Your task to perform on an android device: change notifications settings Image 0: 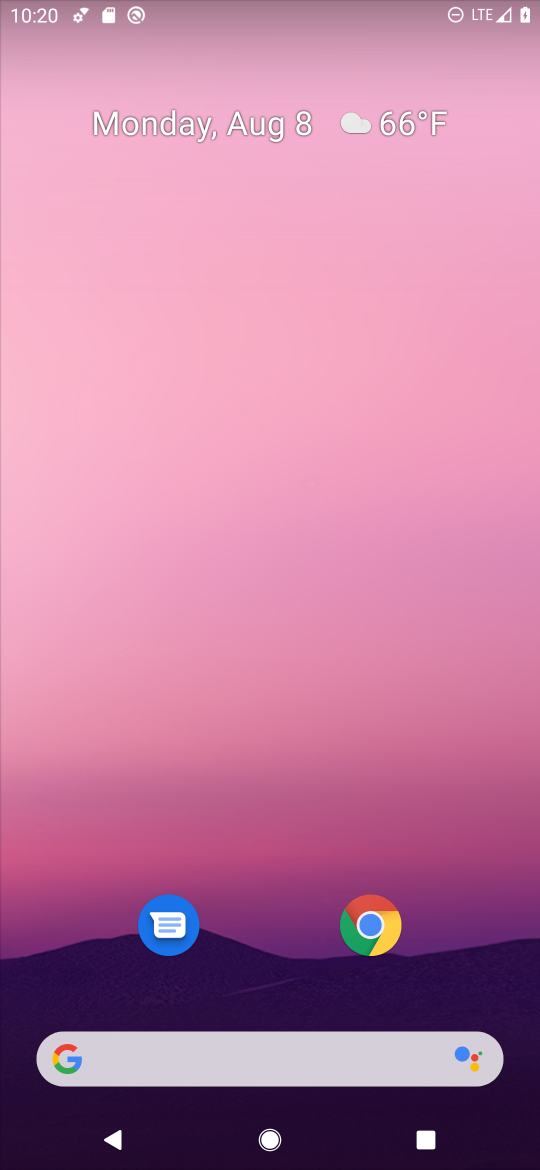
Step 0: drag from (248, 948) to (297, 205)
Your task to perform on an android device: change notifications settings Image 1: 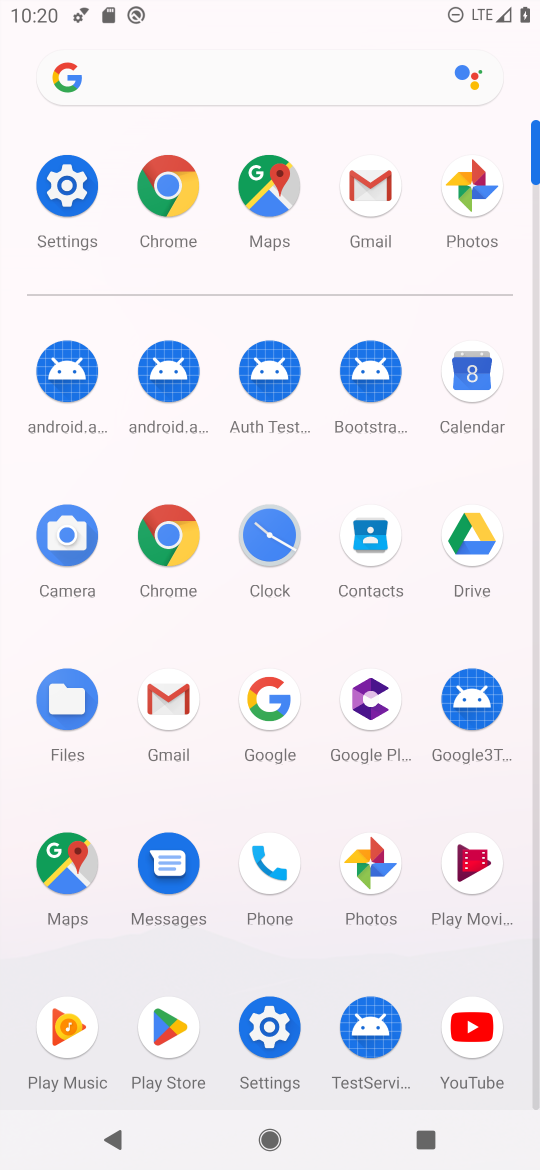
Step 1: click (280, 1033)
Your task to perform on an android device: change notifications settings Image 2: 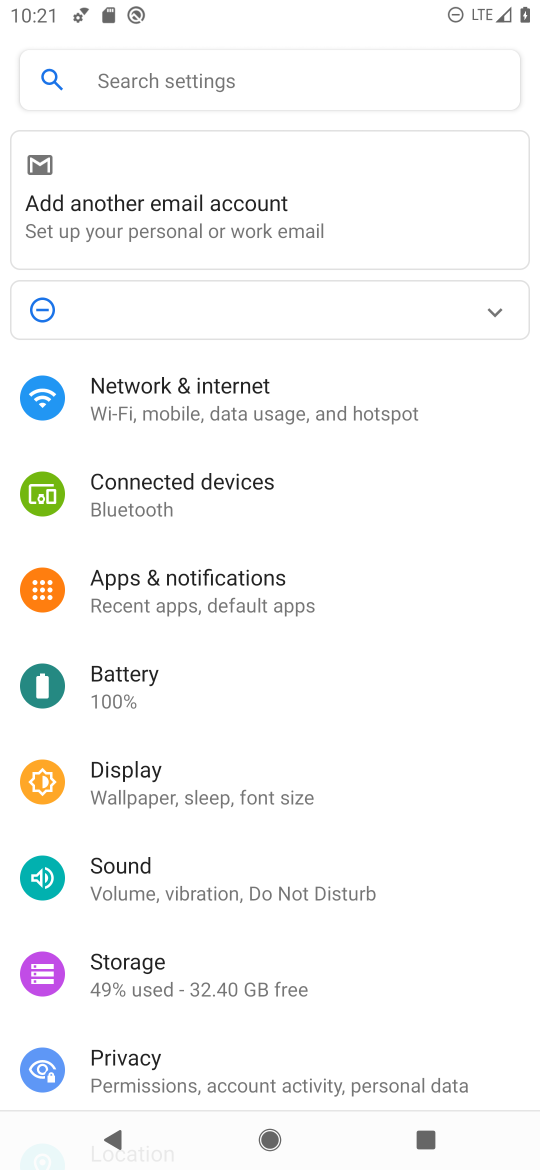
Step 2: click (177, 573)
Your task to perform on an android device: change notifications settings Image 3: 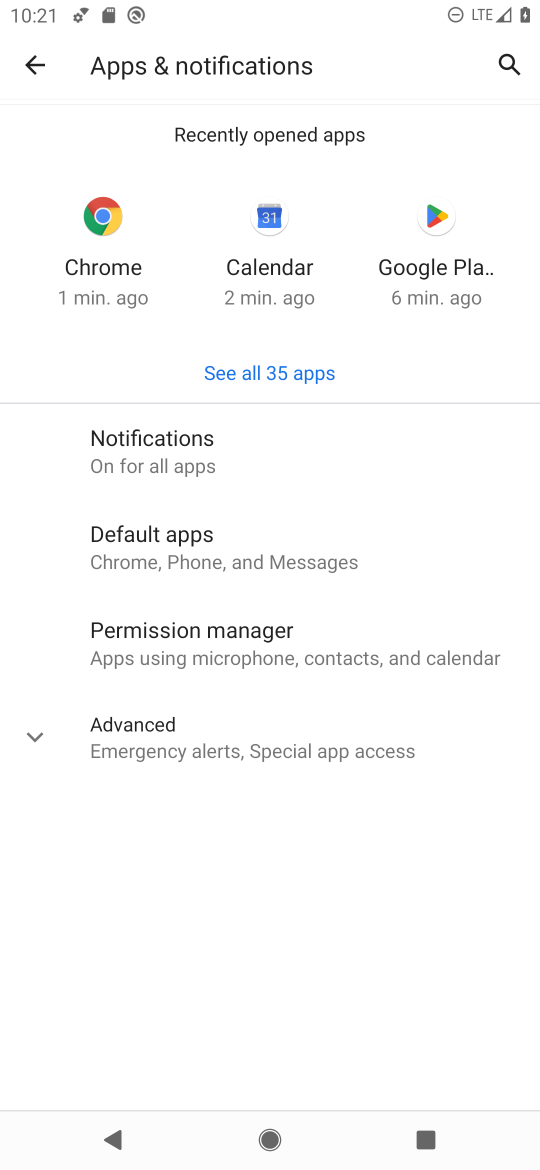
Step 3: click (152, 456)
Your task to perform on an android device: change notifications settings Image 4: 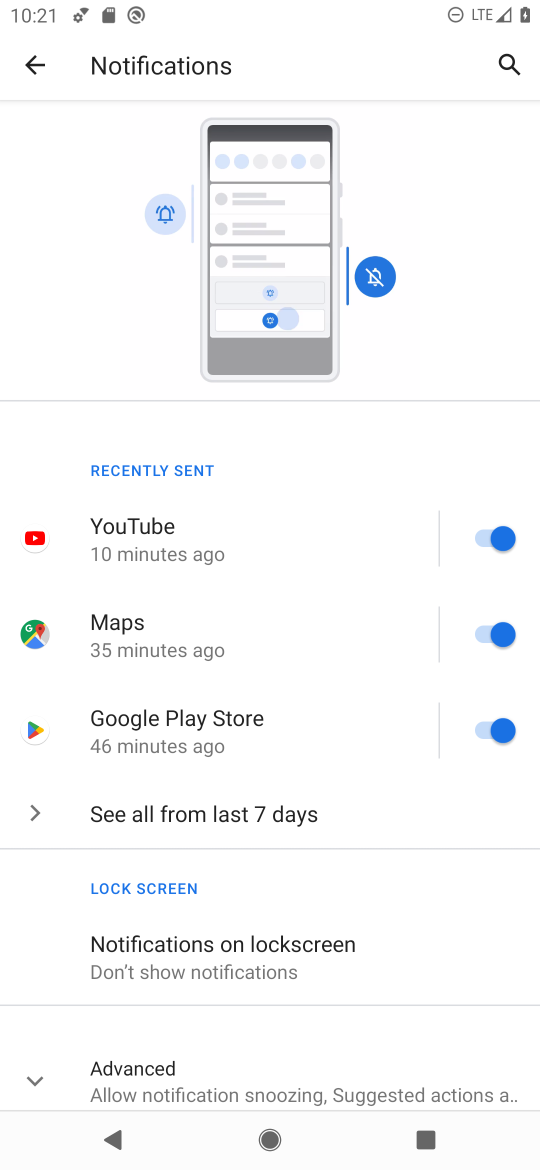
Step 4: task complete